Your task to perform on an android device: change the upload size in google photos Image 0: 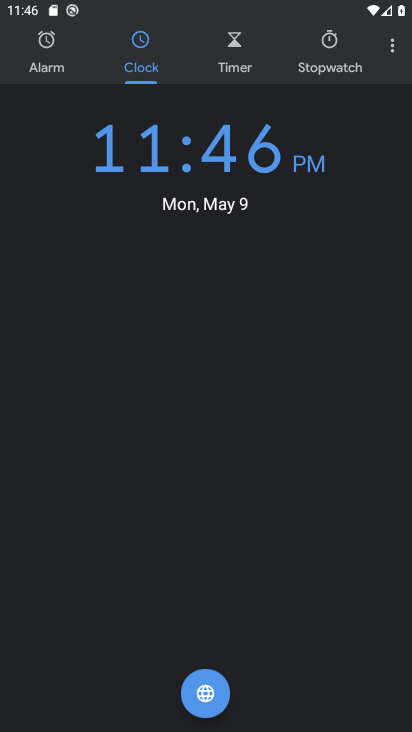
Step 0: press home button
Your task to perform on an android device: change the upload size in google photos Image 1: 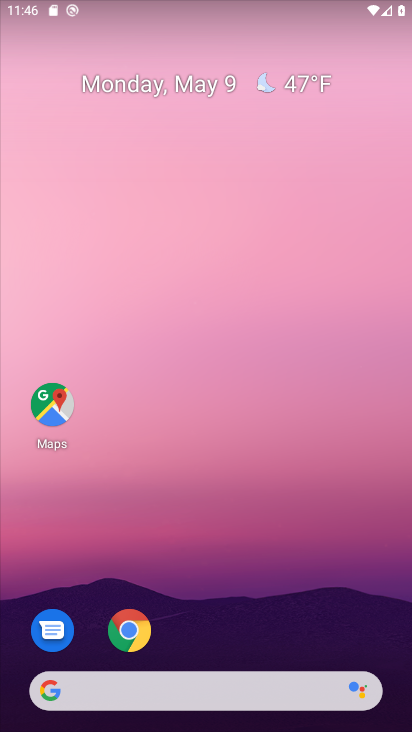
Step 1: drag from (265, 614) to (132, 201)
Your task to perform on an android device: change the upload size in google photos Image 2: 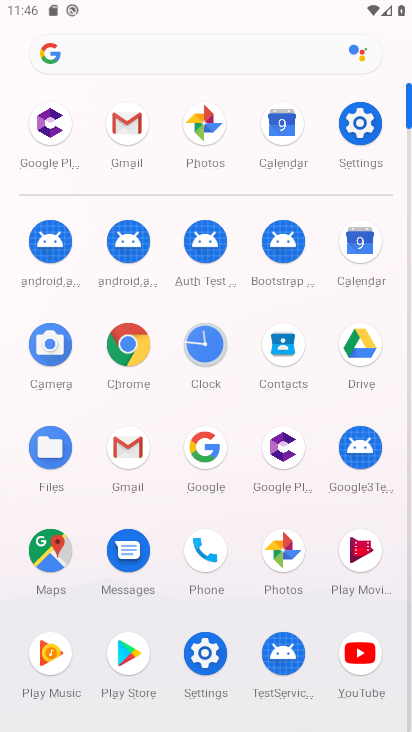
Step 2: click (207, 137)
Your task to perform on an android device: change the upload size in google photos Image 3: 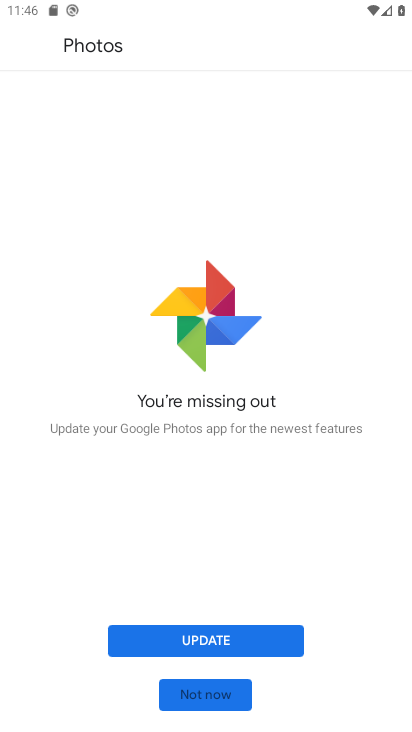
Step 3: click (188, 694)
Your task to perform on an android device: change the upload size in google photos Image 4: 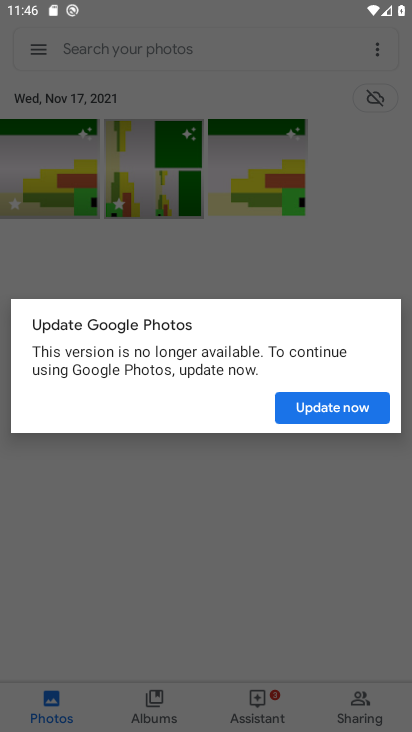
Step 4: press back button
Your task to perform on an android device: change the upload size in google photos Image 5: 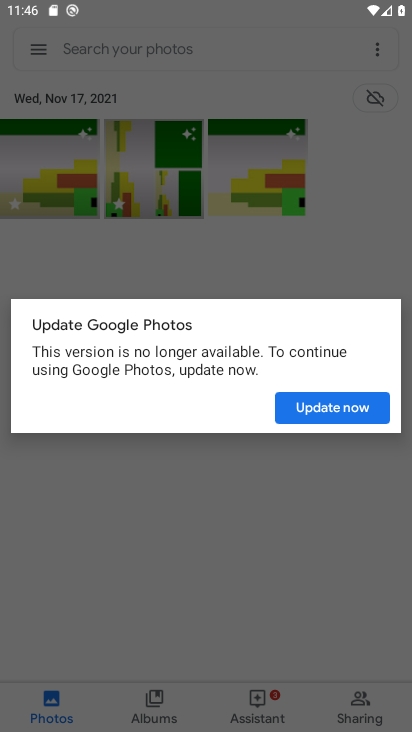
Step 5: click (370, 400)
Your task to perform on an android device: change the upload size in google photos Image 6: 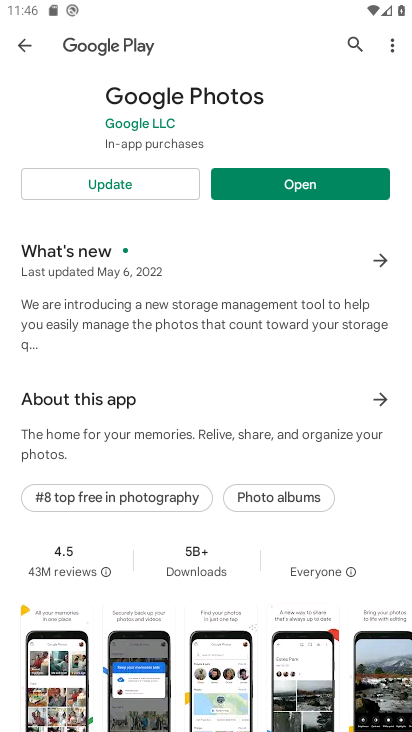
Step 6: press back button
Your task to perform on an android device: change the upload size in google photos Image 7: 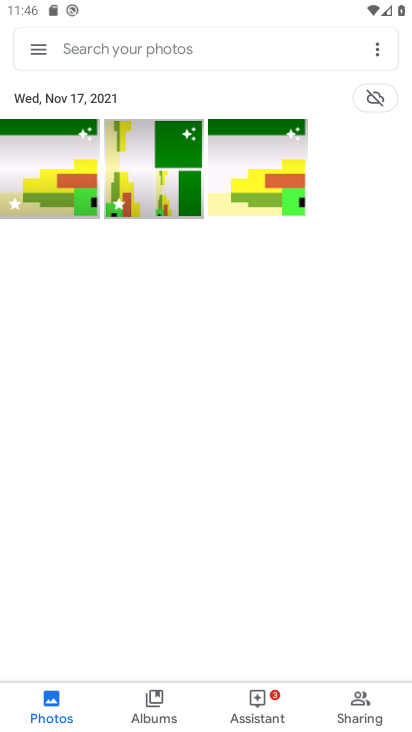
Step 7: click (37, 48)
Your task to perform on an android device: change the upload size in google photos Image 8: 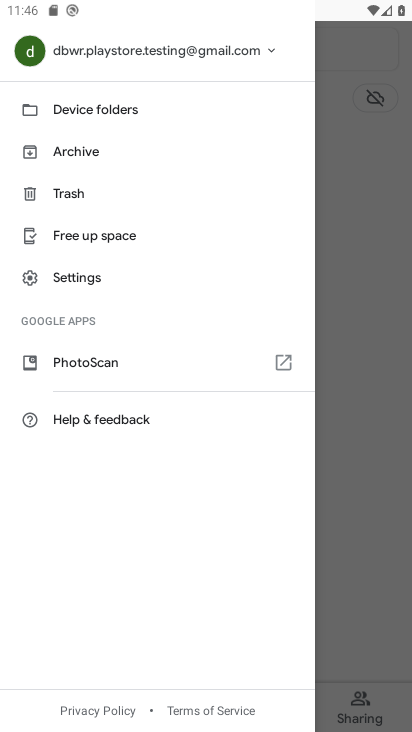
Step 8: click (85, 275)
Your task to perform on an android device: change the upload size in google photos Image 9: 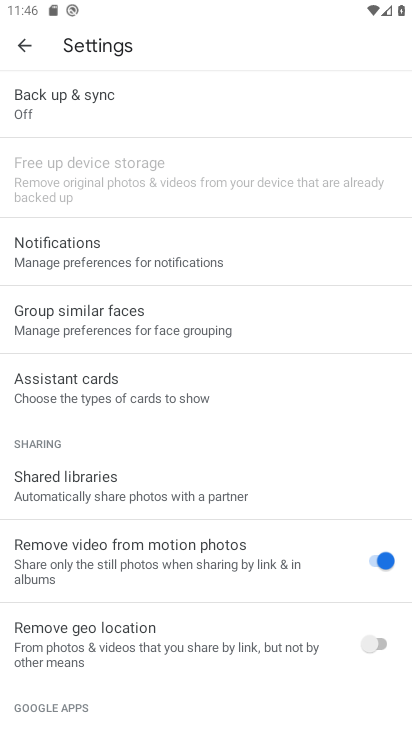
Step 9: click (64, 107)
Your task to perform on an android device: change the upload size in google photos Image 10: 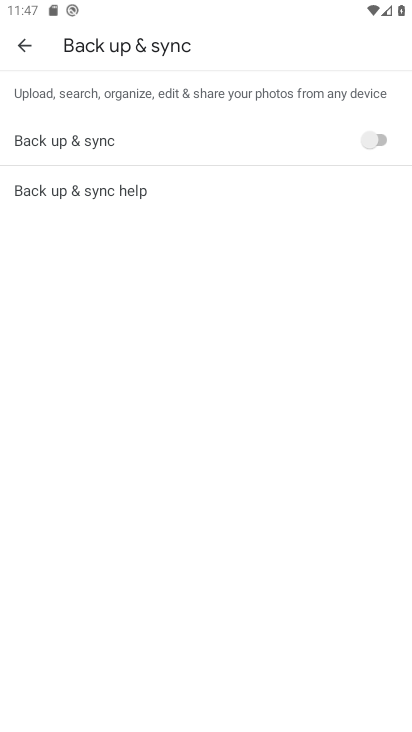
Step 10: press back button
Your task to perform on an android device: change the upload size in google photos Image 11: 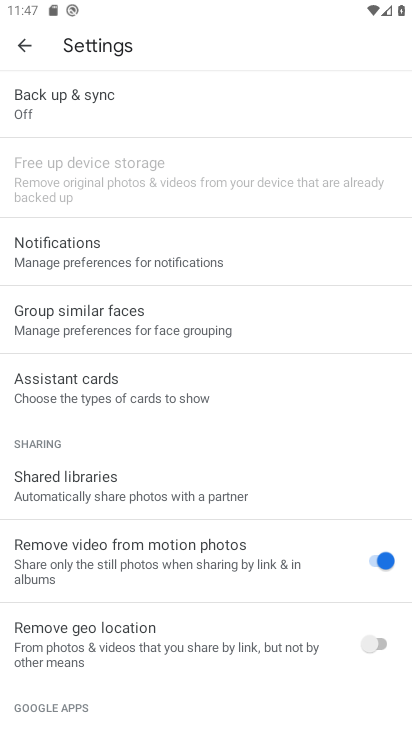
Step 11: drag from (201, 617) to (197, 272)
Your task to perform on an android device: change the upload size in google photos Image 12: 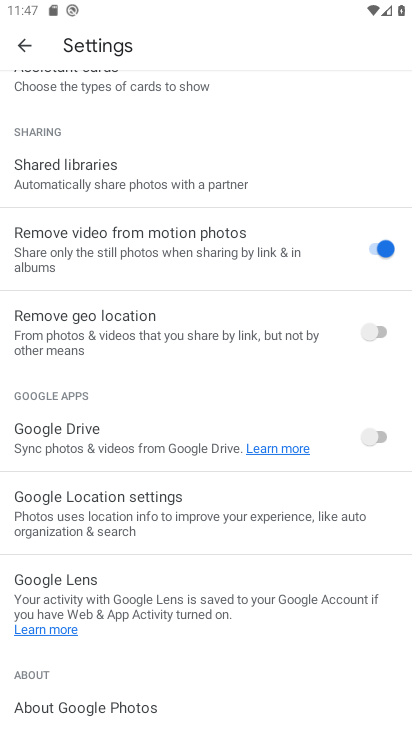
Step 12: drag from (190, 624) to (194, 319)
Your task to perform on an android device: change the upload size in google photos Image 13: 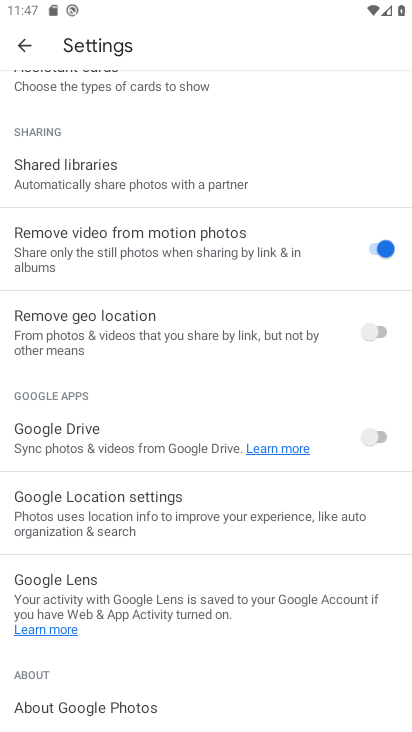
Step 13: press back button
Your task to perform on an android device: change the upload size in google photos Image 14: 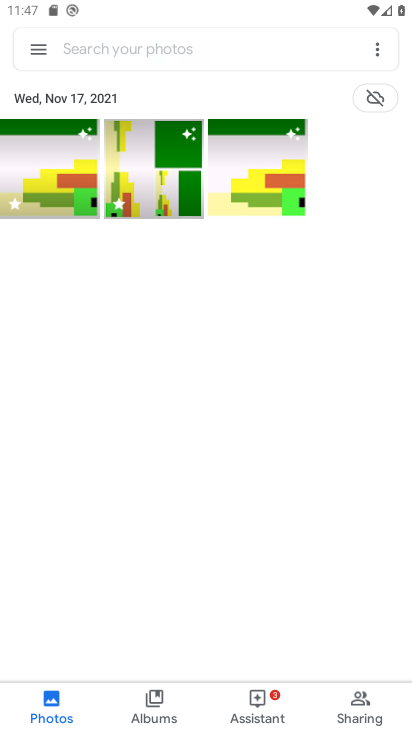
Step 14: click (376, 51)
Your task to perform on an android device: change the upload size in google photos Image 15: 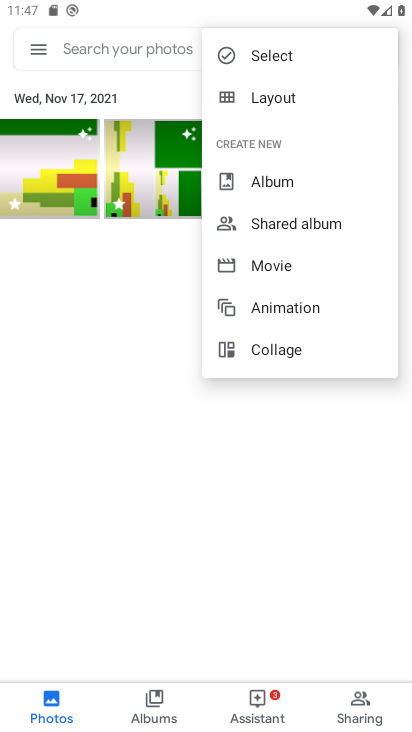
Step 15: click (60, 64)
Your task to perform on an android device: change the upload size in google photos Image 16: 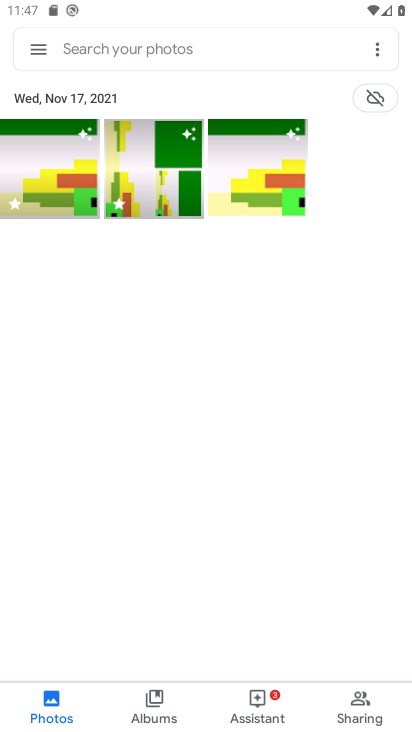
Step 16: click (41, 44)
Your task to perform on an android device: change the upload size in google photos Image 17: 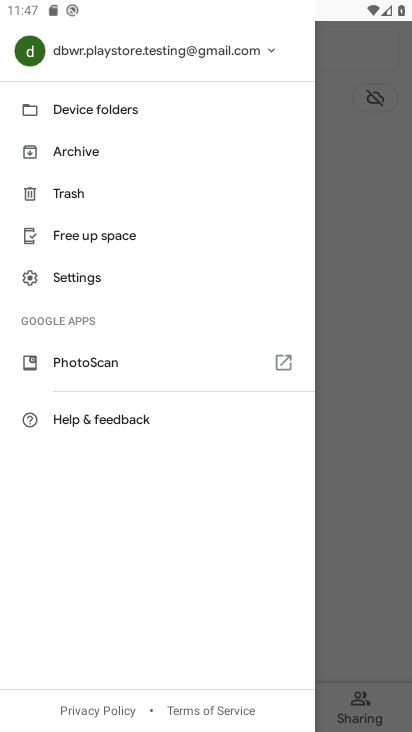
Step 17: press back button
Your task to perform on an android device: change the upload size in google photos Image 18: 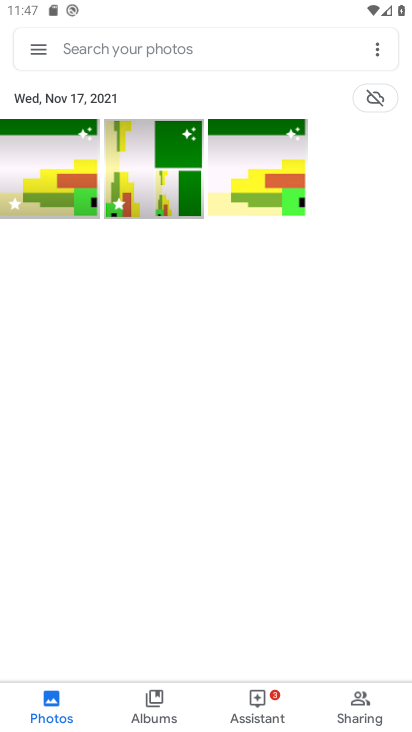
Step 18: press back button
Your task to perform on an android device: change the upload size in google photos Image 19: 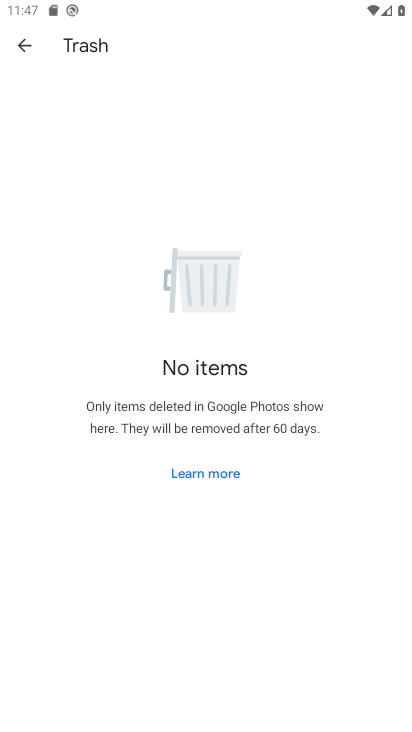
Step 19: press back button
Your task to perform on an android device: change the upload size in google photos Image 20: 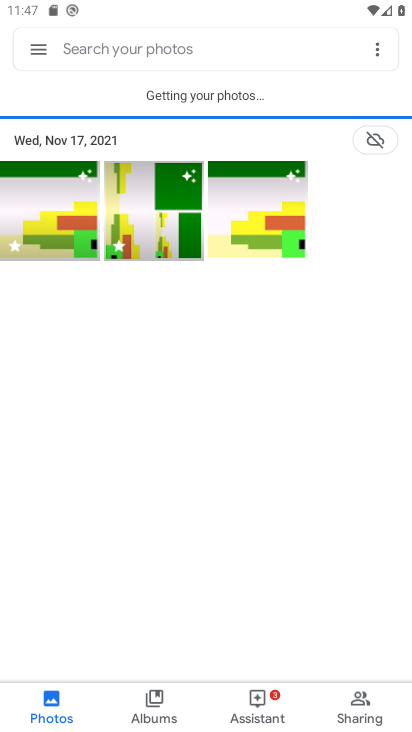
Step 20: press back button
Your task to perform on an android device: change the upload size in google photos Image 21: 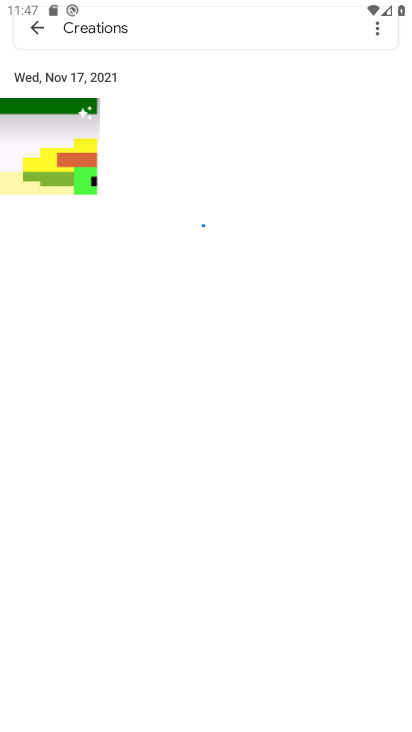
Step 21: press back button
Your task to perform on an android device: change the upload size in google photos Image 22: 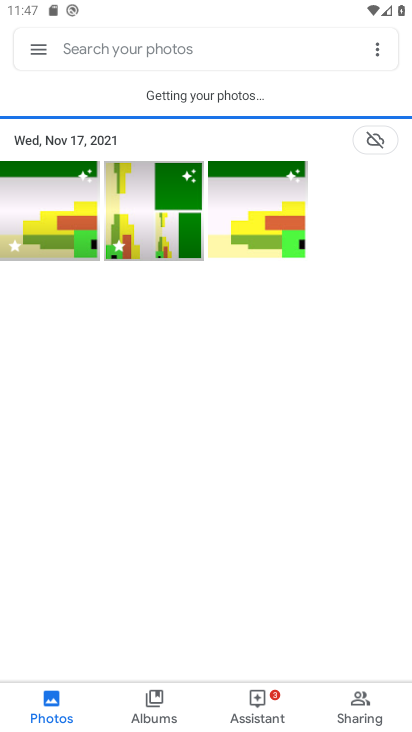
Step 22: press back button
Your task to perform on an android device: change the upload size in google photos Image 23: 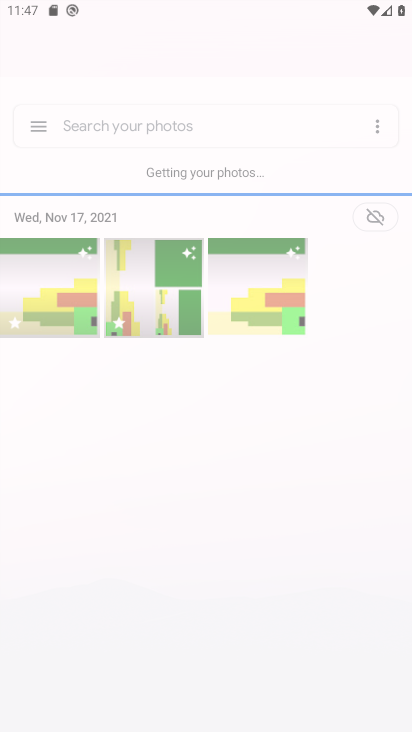
Step 23: press back button
Your task to perform on an android device: change the upload size in google photos Image 24: 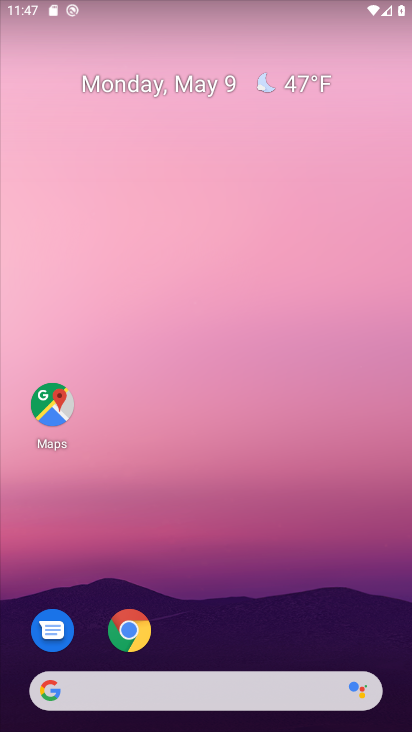
Step 24: drag from (236, 562) to (150, 134)
Your task to perform on an android device: change the upload size in google photos Image 25: 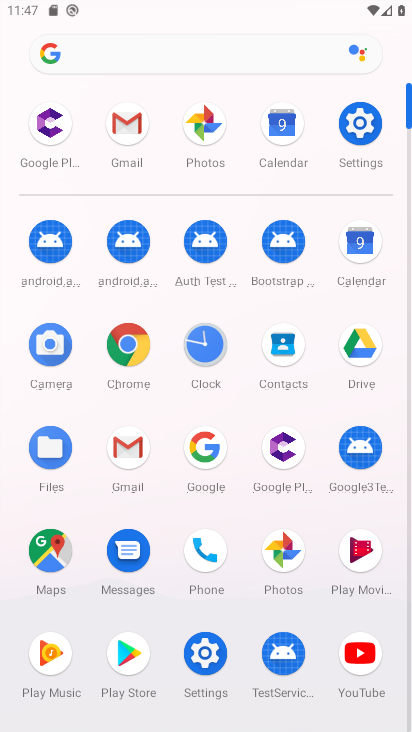
Step 25: click (211, 129)
Your task to perform on an android device: change the upload size in google photos Image 26: 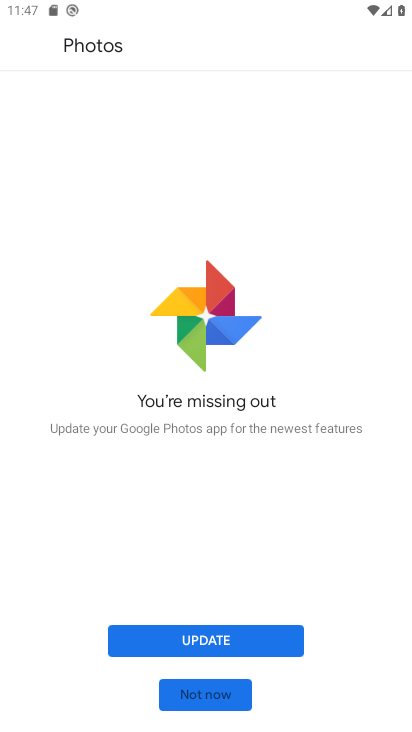
Step 26: click (226, 635)
Your task to perform on an android device: change the upload size in google photos Image 27: 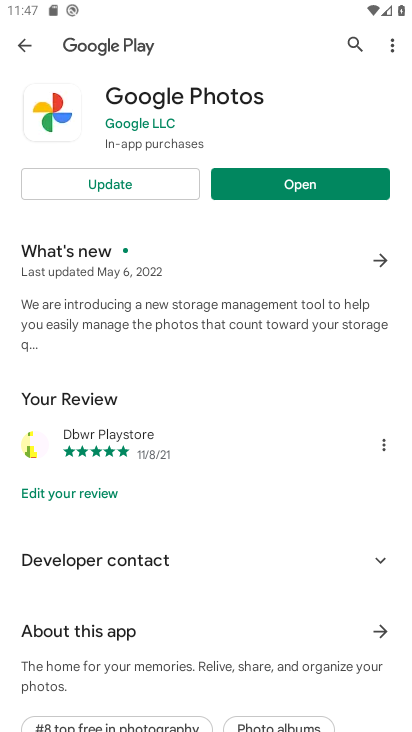
Step 27: click (132, 191)
Your task to perform on an android device: change the upload size in google photos Image 28: 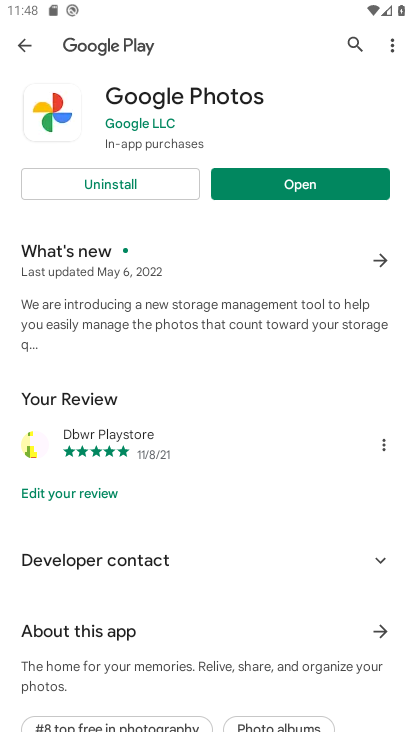
Step 28: click (315, 185)
Your task to perform on an android device: change the upload size in google photos Image 29: 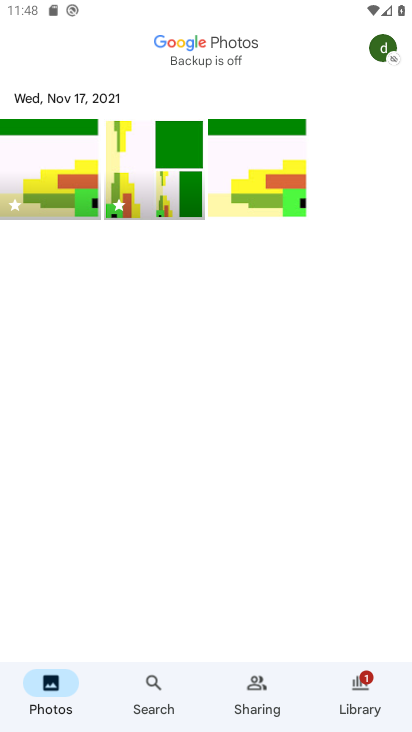
Step 29: click (386, 47)
Your task to perform on an android device: change the upload size in google photos Image 30: 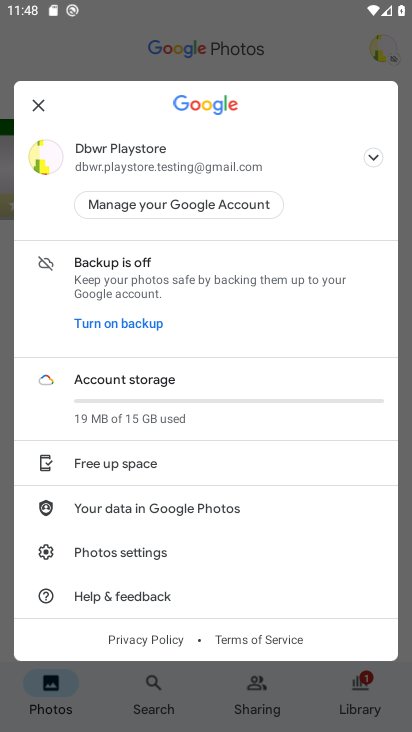
Step 30: click (134, 554)
Your task to perform on an android device: change the upload size in google photos Image 31: 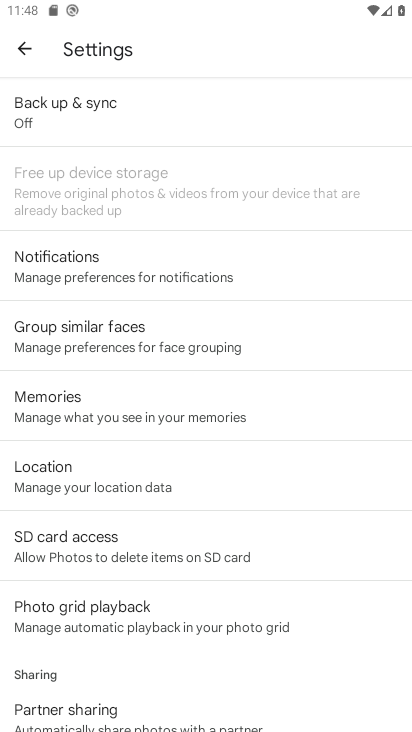
Step 31: click (122, 116)
Your task to perform on an android device: change the upload size in google photos Image 32: 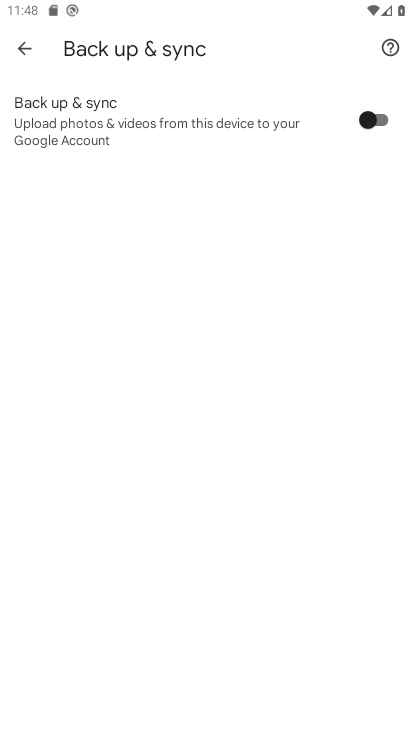
Step 32: task complete